Your task to perform on an android device: change timer sound Image 0: 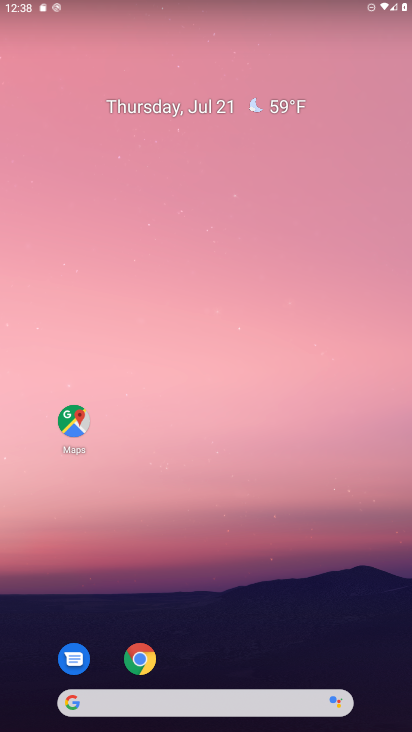
Step 0: drag from (77, 443) to (168, 141)
Your task to perform on an android device: change timer sound Image 1: 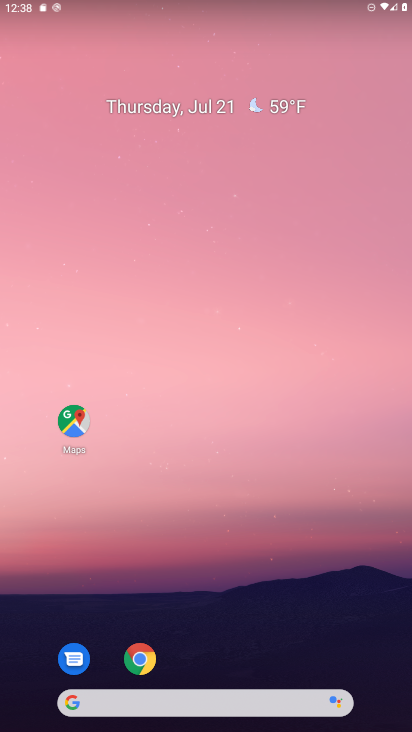
Step 1: drag from (37, 618) to (338, 19)
Your task to perform on an android device: change timer sound Image 2: 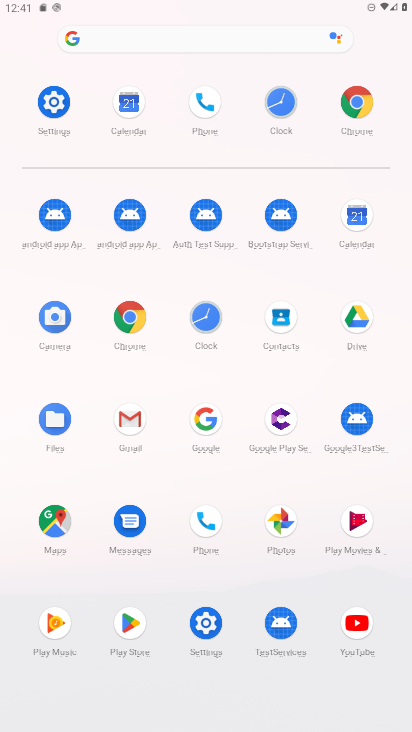
Step 2: click (188, 326)
Your task to perform on an android device: change timer sound Image 3: 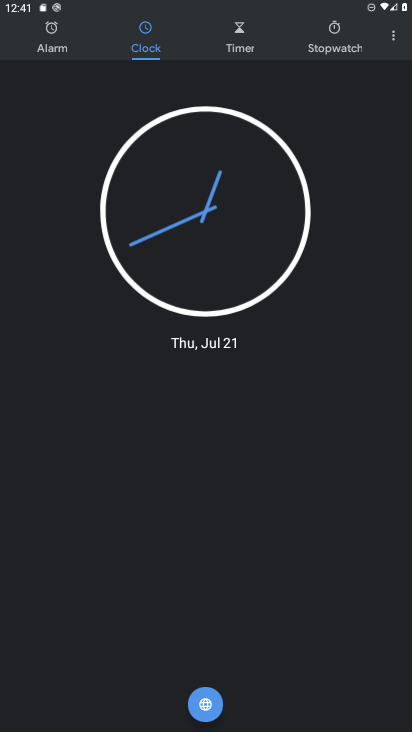
Step 3: click (384, 36)
Your task to perform on an android device: change timer sound Image 4: 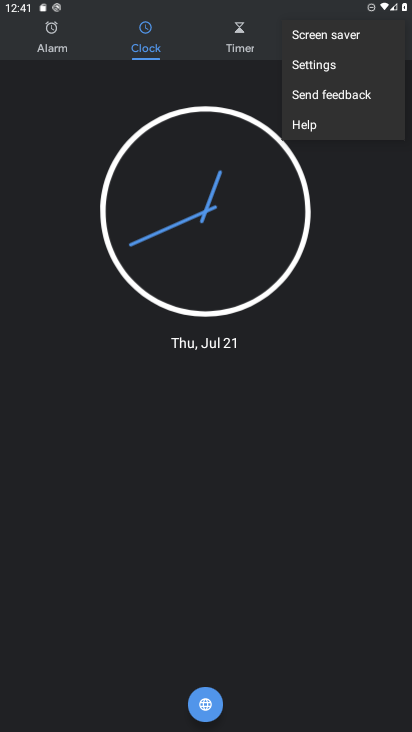
Step 4: click (337, 57)
Your task to perform on an android device: change timer sound Image 5: 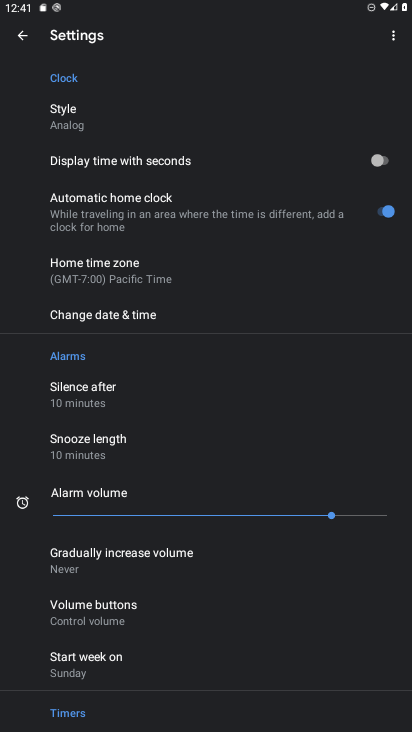
Step 5: drag from (5, 669) to (224, 150)
Your task to perform on an android device: change timer sound Image 6: 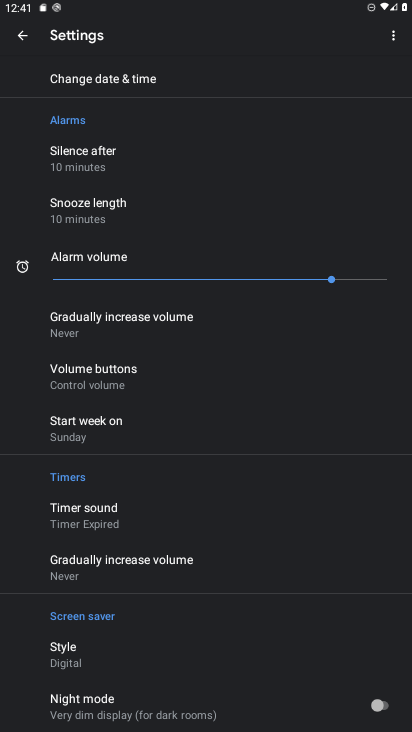
Step 6: click (118, 507)
Your task to perform on an android device: change timer sound Image 7: 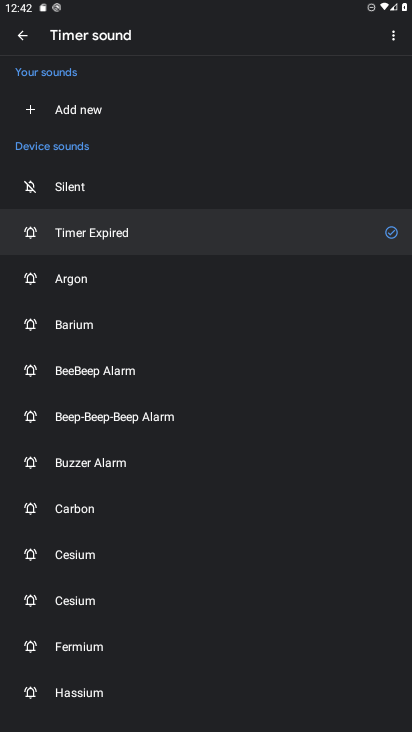
Step 7: click (130, 302)
Your task to perform on an android device: change timer sound Image 8: 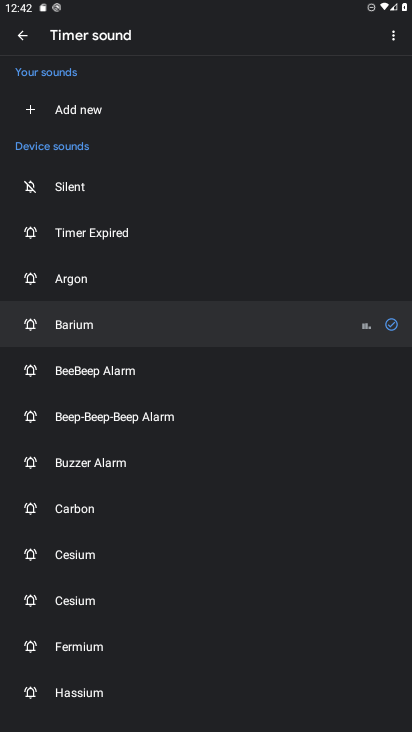
Step 8: task complete